Your task to perform on an android device: Open display settings Image 0: 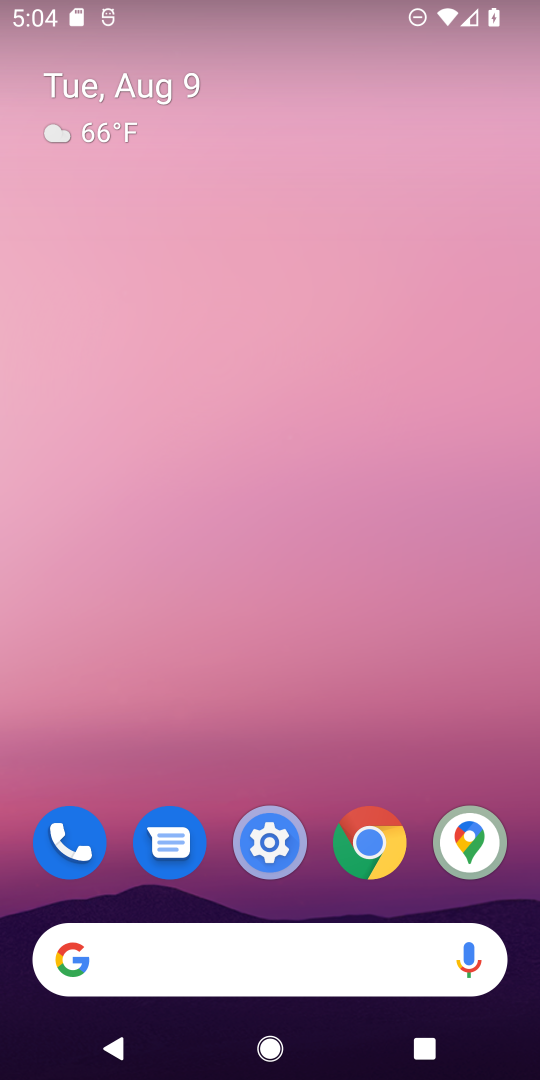
Step 0: drag from (324, 945) to (261, 362)
Your task to perform on an android device: Open display settings Image 1: 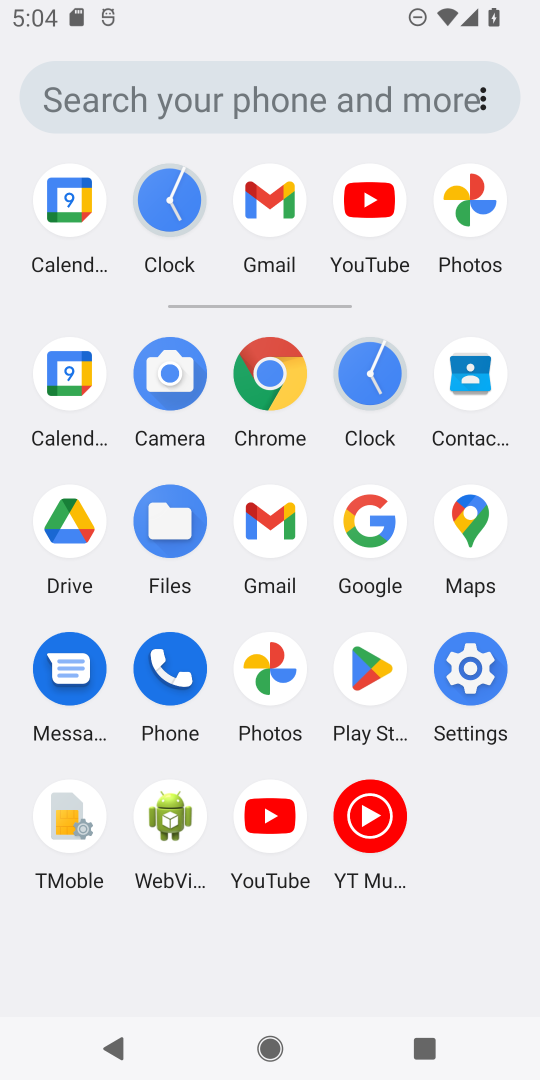
Step 1: click (483, 640)
Your task to perform on an android device: Open display settings Image 2: 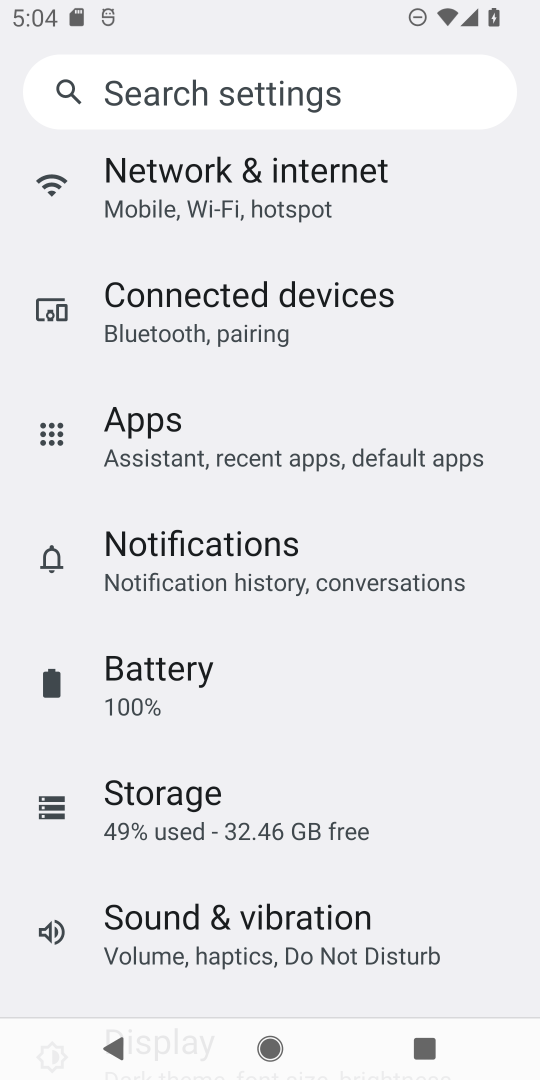
Step 2: drag from (492, 908) to (445, 118)
Your task to perform on an android device: Open display settings Image 3: 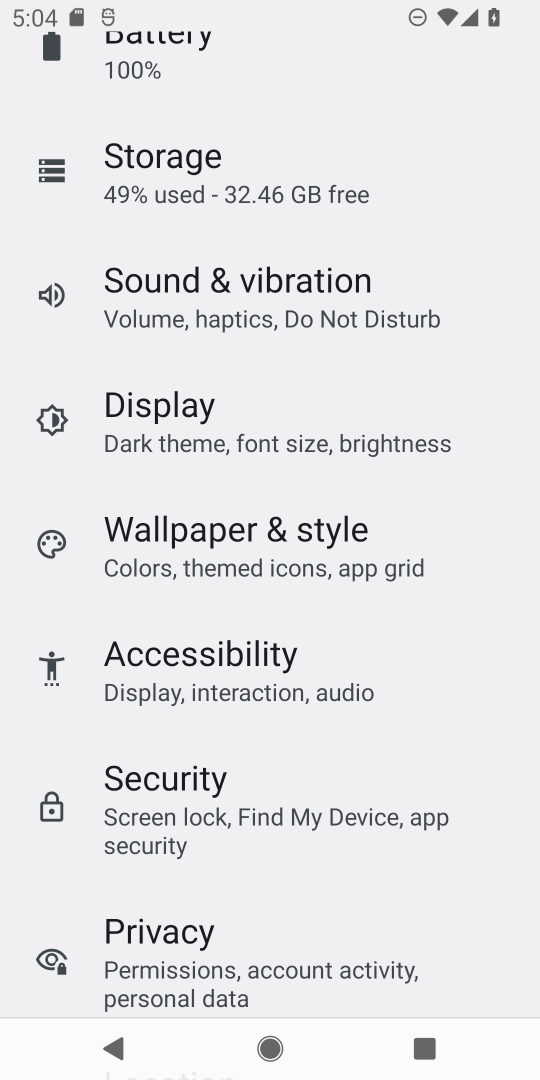
Step 3: click (344, 447)
Your task to perform on an android device: Open display settings Image 4: 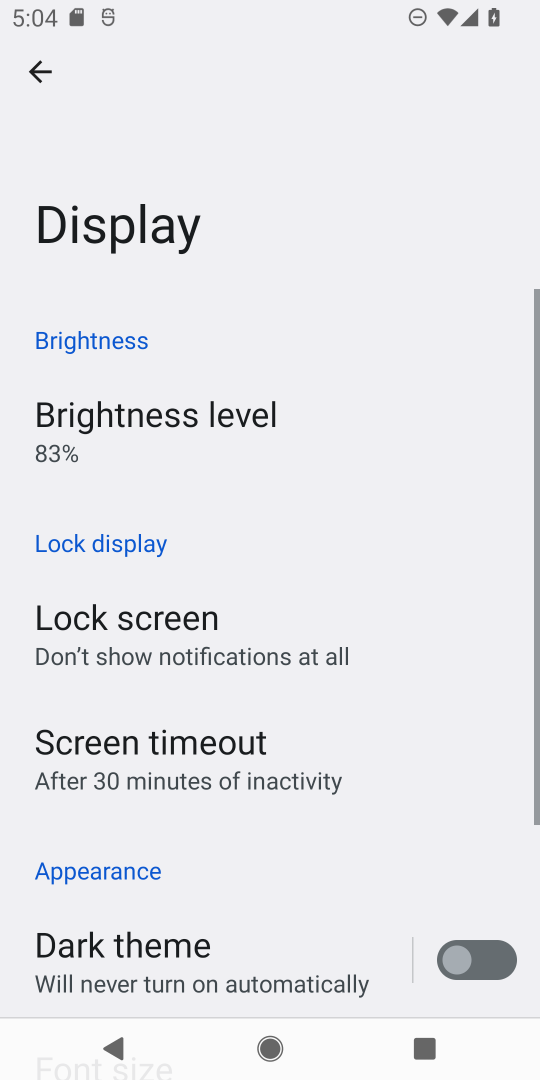
Step 4: task complete